Your task to perform on an android device: Go to eBay Image 0: 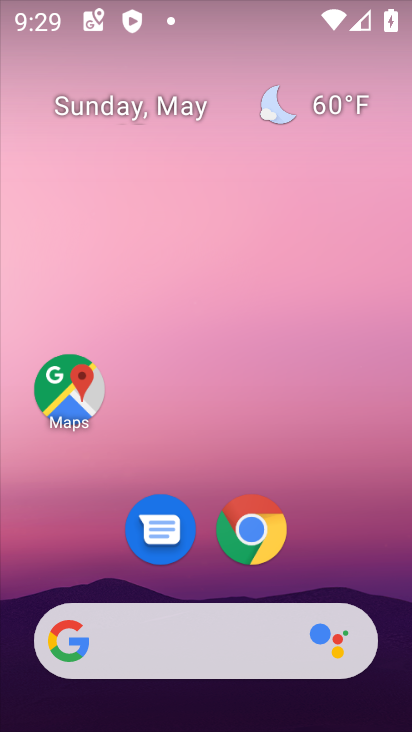
Step 0: drag from (368, 475) to (386, 181)
Your task to perform on an android device: Go to eBay Image 1: 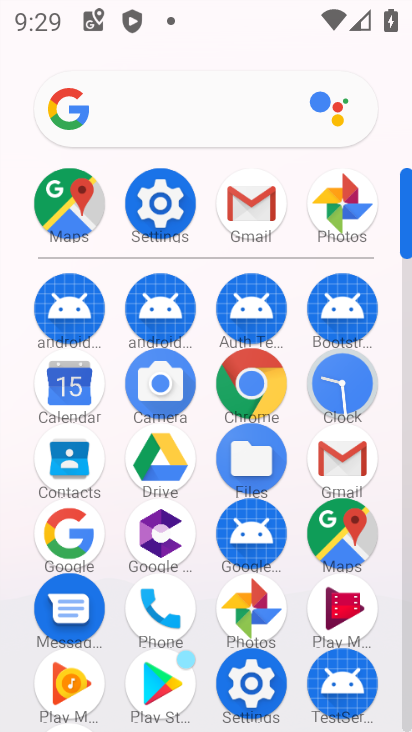
Step 1: click (272, 384)
Your task to perform on an android device: Go to eBay Image 2: 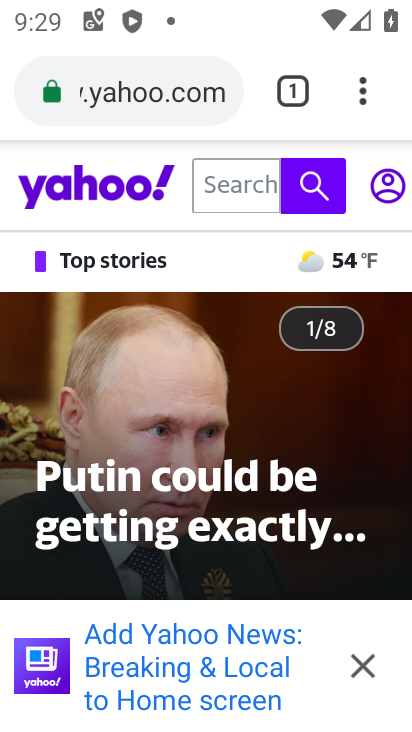
Step 2: click (176, 90)
Your task to perform on an android device: Go to eBay Image 3: 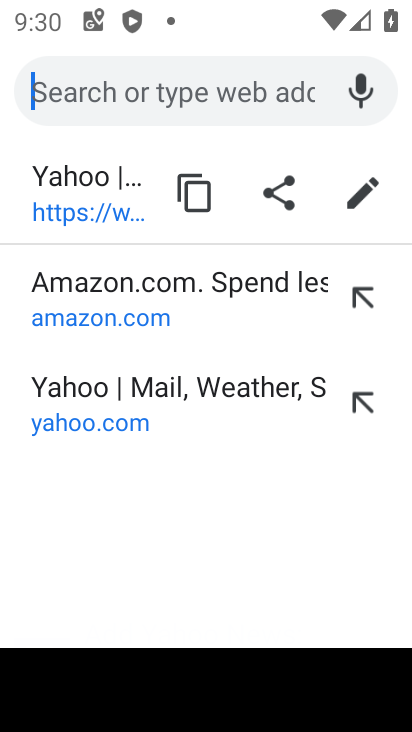
Step 3: type "ebay"
Your task to perform on an android device: Go to eBay Image 4: 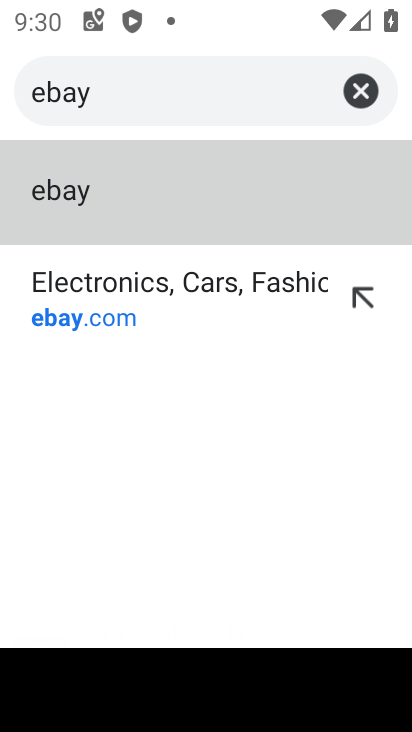
Step 4: click (135, 192)
Your task to perform on an android device: Go to eBay Image 5: 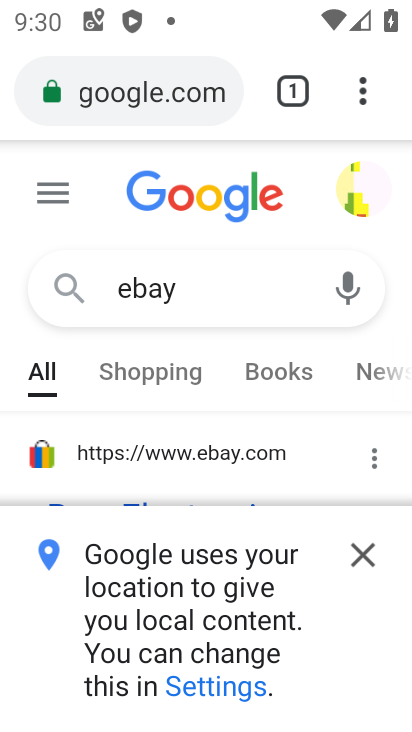
Step 5: task complete